Your task to perform on an android device: Open Yahoo.com Image 0: 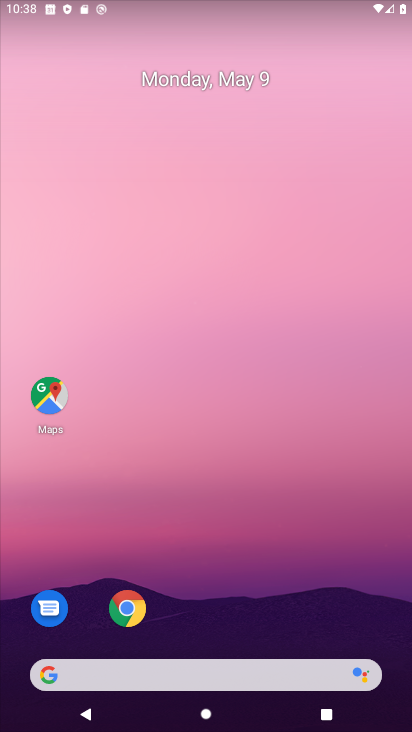
Step 0: click (131, 600)
Your task to perform on an android device: Open Yahoo.com Image 1: 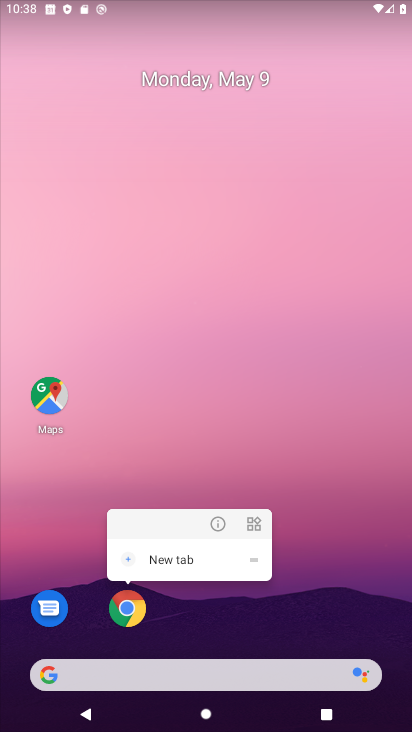
Step 1: click (126, 608)
Your task to perform on an android device: Open Yahoo.com Image 2: 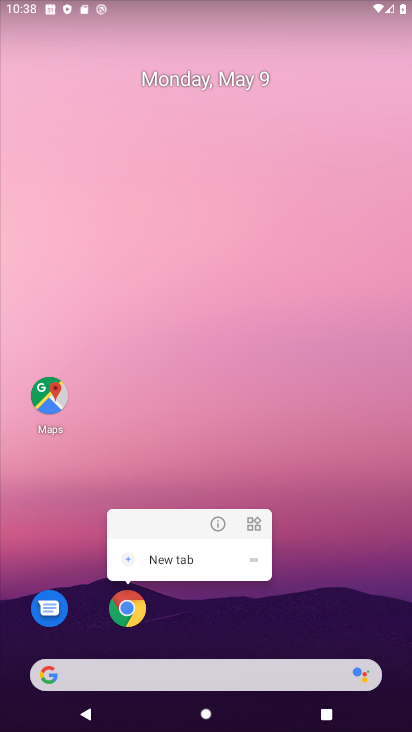
Step 2: click (125, 614)
Your task to perform on an android device: Open Yahoo.com Image 3: 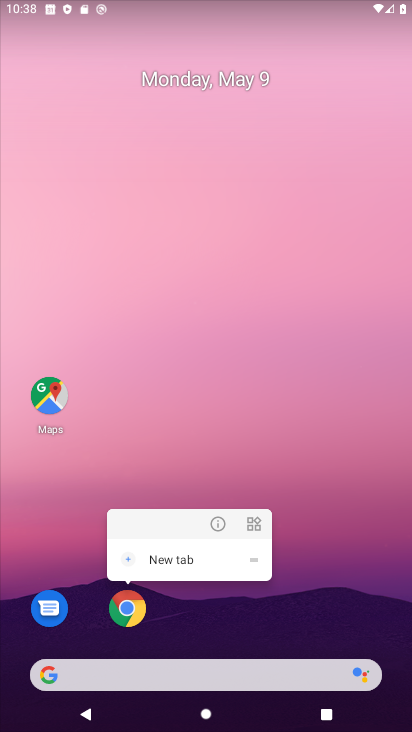
Step 3: click (130, 612)
Your task to perform on an android device: Open Yahoo.com Image 4: 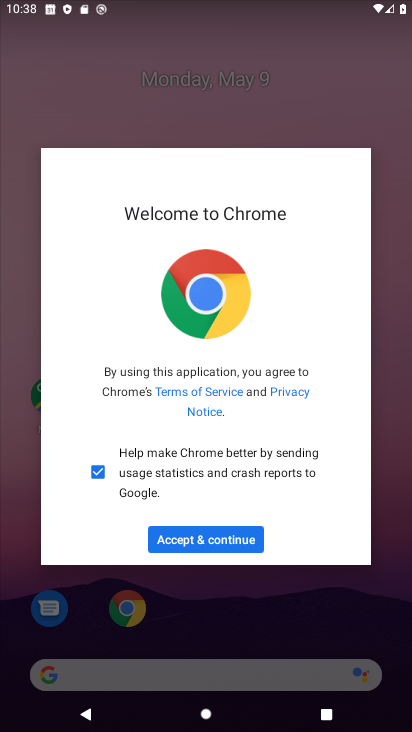
Step 4: click (230, 542)
Your task to perform on an android device: Open Yahoo.com Image 5: 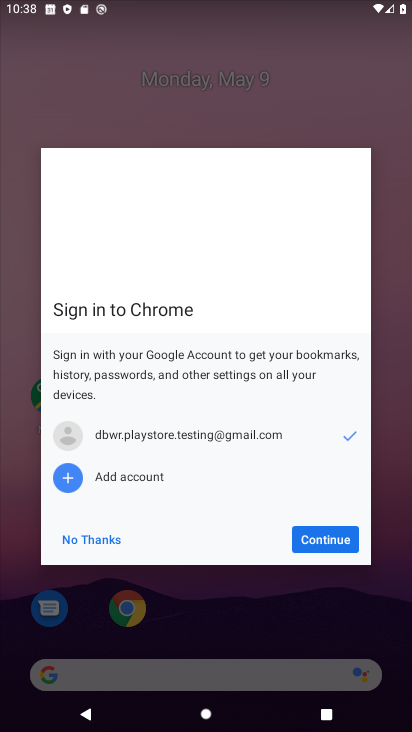
Step 5: click (345, 541)
Your task to perform on an android device: Open Yahoo.com Image 6: 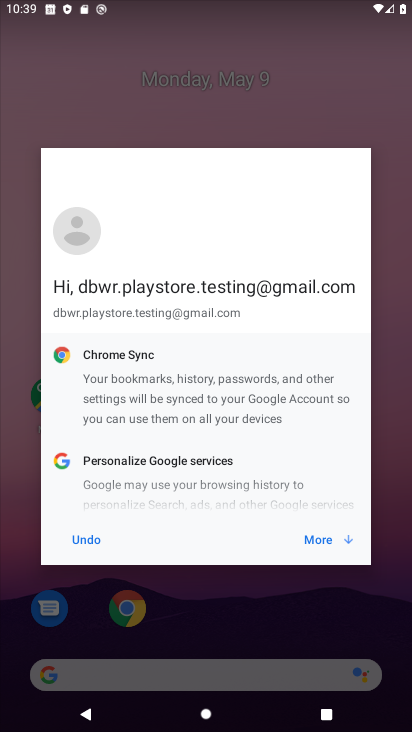
Step 6: click (337, 539)
Your task to perform on an android device: Open Yahoo.com Image 7: 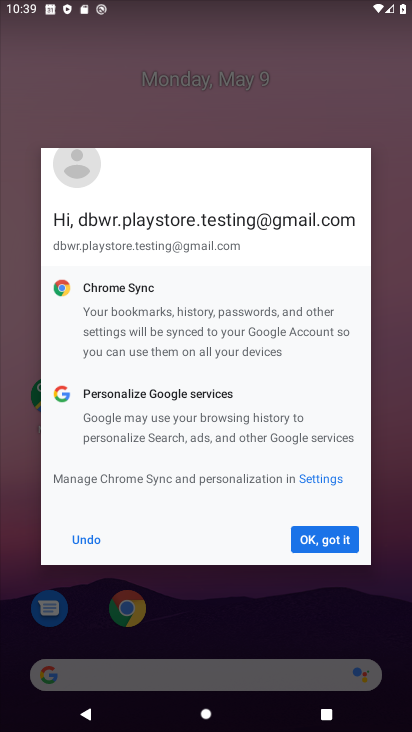
Step 7: click (334, 539)
Your task to perform on an android device: Open Yahoo.com Image 8: 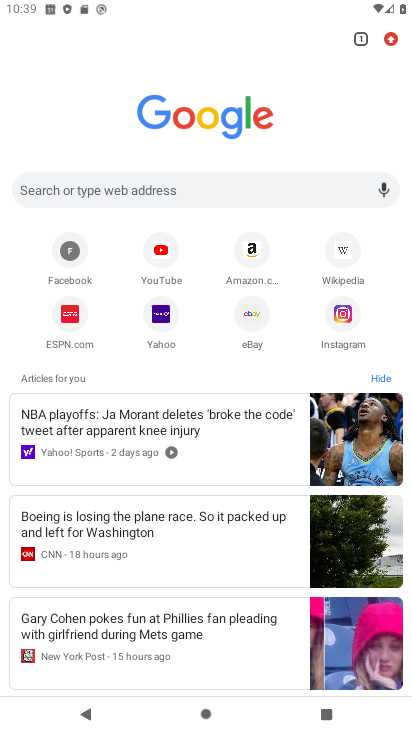
Step 8: click (156, 309)
Your task to perform on an android device: Open Yahoo.com Image 9: 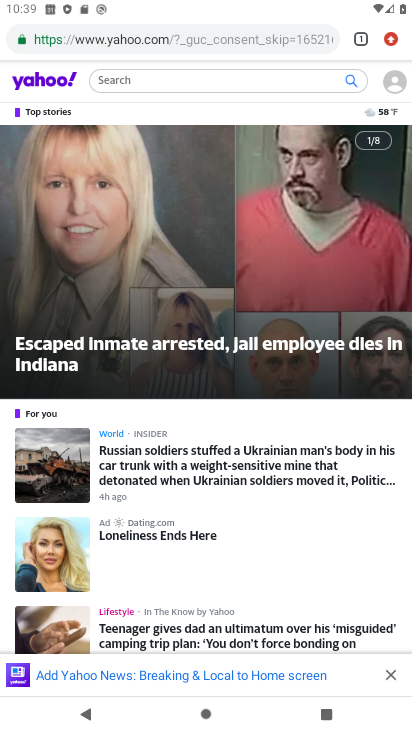
Step 9: task complete